Your task to perform on an android device: Go to settings Image 0: 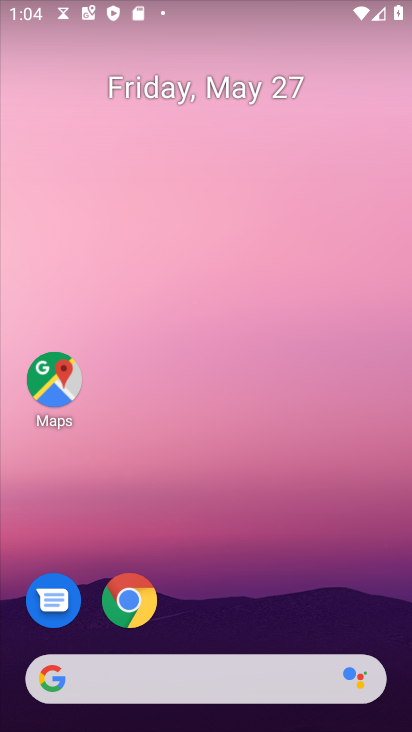
Step 0: drag from (210, 515) to (228, 75)
Your task to perform on an android device: Go to settings Image 1: 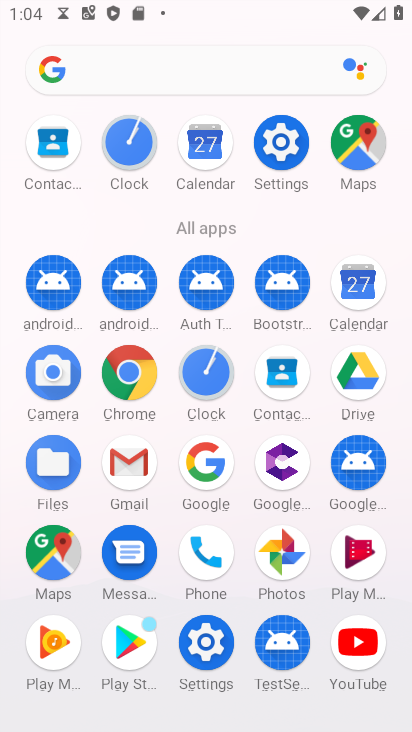
Step 1: click (263, 142)
Your task to perform on an android device: Go to settings Image 2: 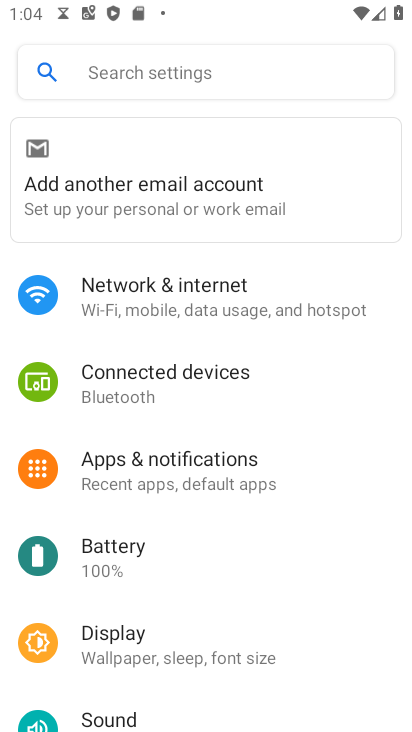
Step 2: task complete